Your task to perform on an android device: turn on sleep mode Image 0: 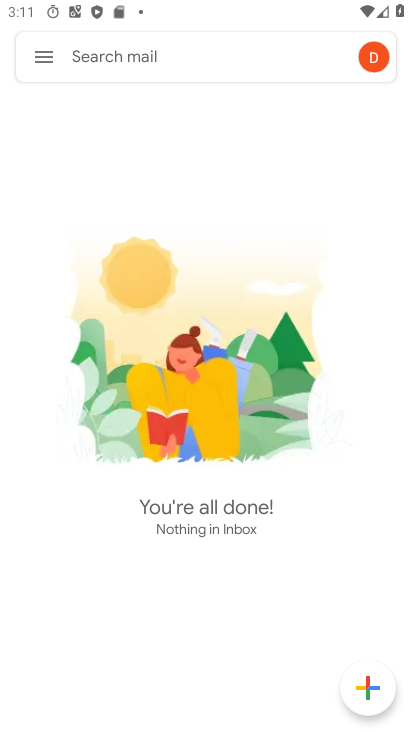
Step 0: press home button
Your task to perform on an android device: turn on sleep mode Image 1: 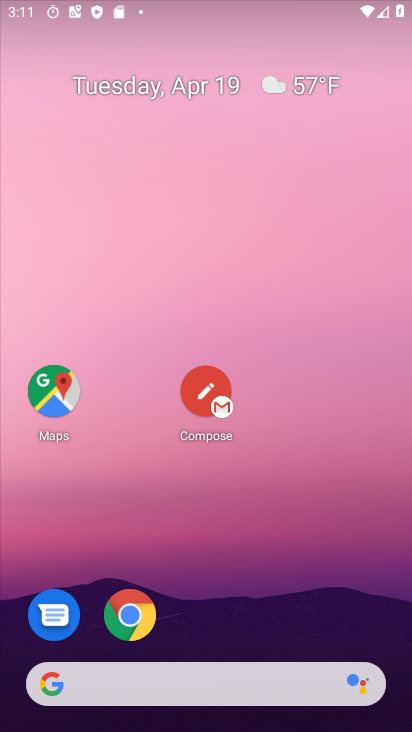
Step 1: drag from (264, 659) to (272, 38)
Your task to perform on an android device: turn on sleep mode Image 2: 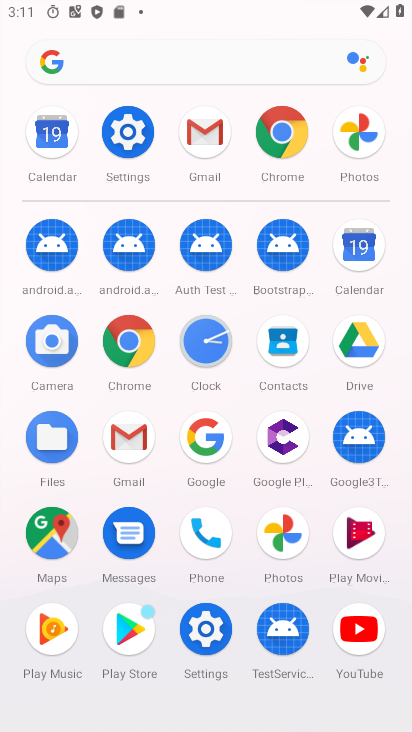
Step 2: click (200, 627)
Your task to perform on an android device: turn on sleep mode Image 3: 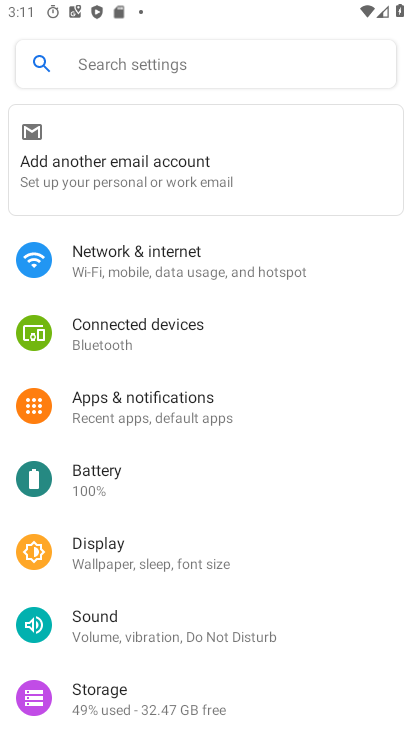
Step 3: click (157, 543)
Your task to perform on an android device: turn on sleep mode Image 4: 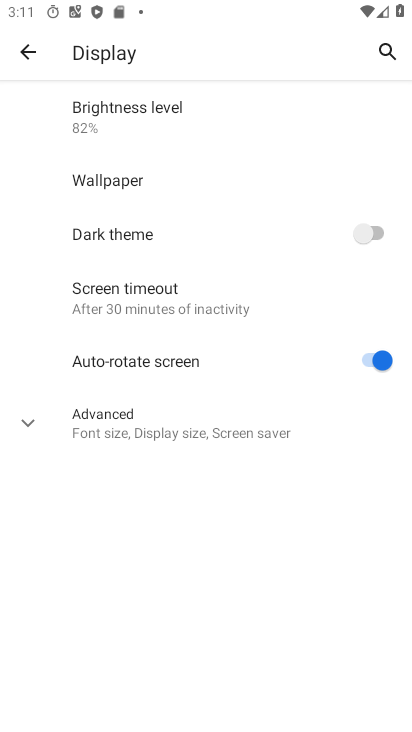
Step 4: click (149, 273)
Your task to perform on an android device: turn on sleep mode Image 5: 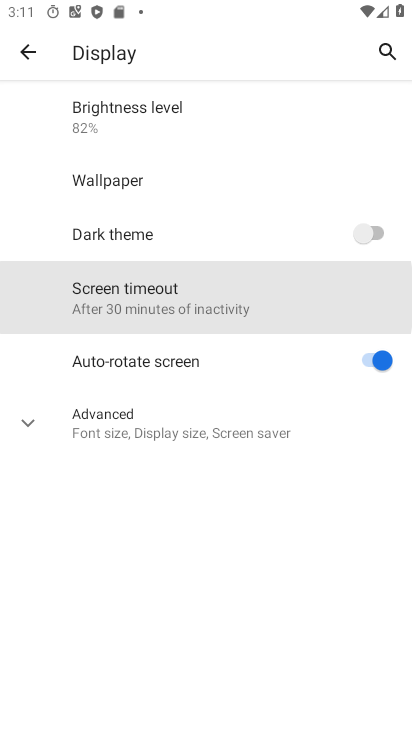
Step 5: click (108, 304)
Your task to perform on an android device: turn on sleep mode Image 6: 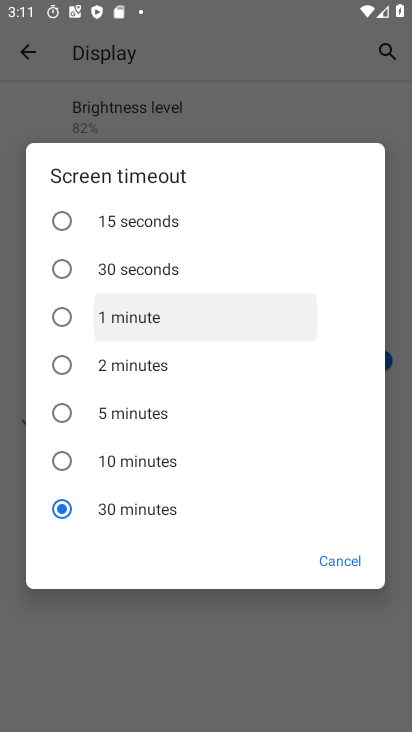
Step 6: click (133, 431)
Your task to perform on an android device: turn on sleep mode Image 7: 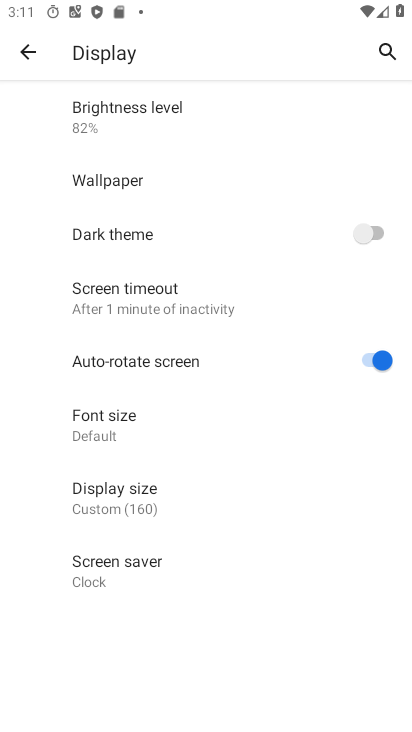
Step 7: task complete